Your task to perform on an android device: show emergency info Image 0: 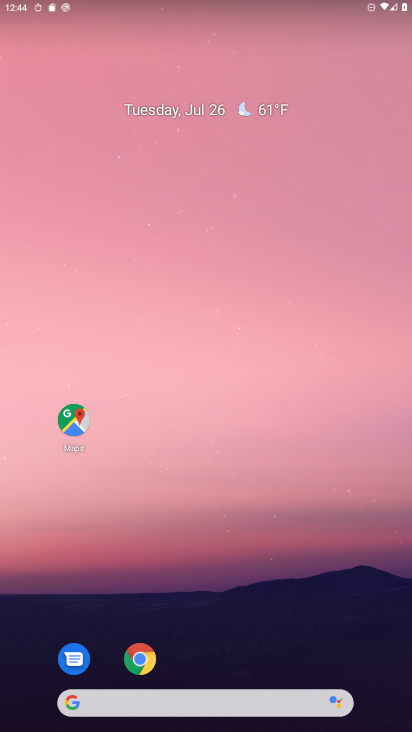
Step 0: drag from (33, 674) to (292, 11)
Your task to perform on an android device: show emergency info Image 1: 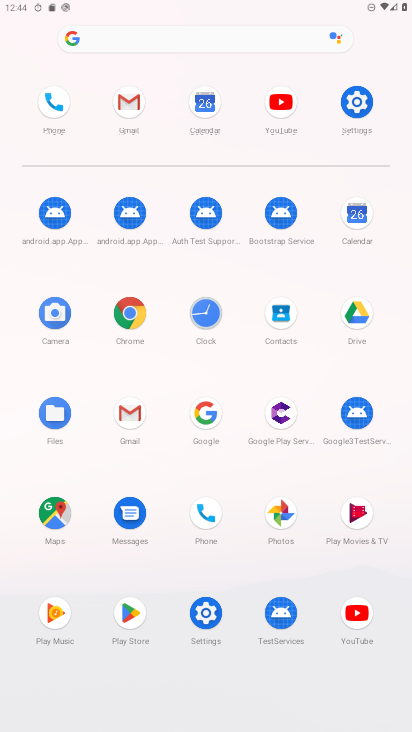
Step 1: click (217, 609)
Your task to perform on an android device: show emergency info Image 2: 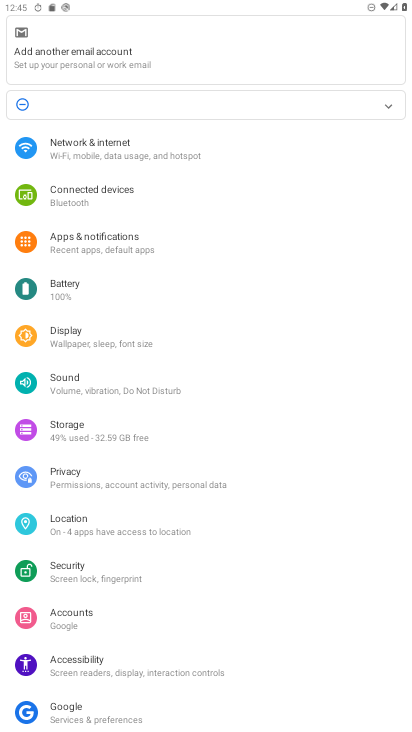
Step 2: click (99, 238)
Your task to perform on an android device: show emergency info Image 3: 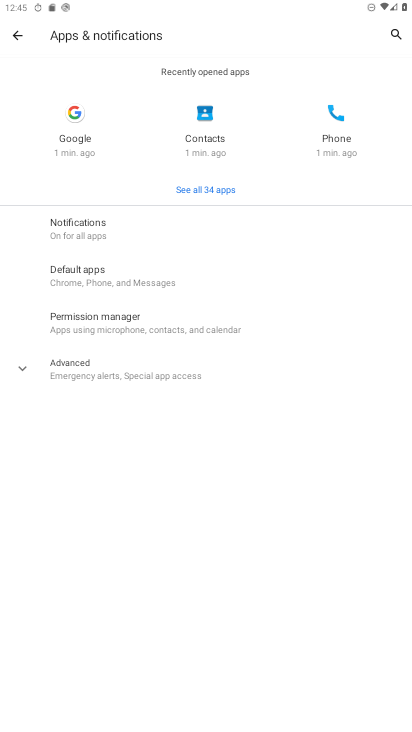
Step 3: click (84, 368)
Your task to perform on an android device: show emergency info Image 4: 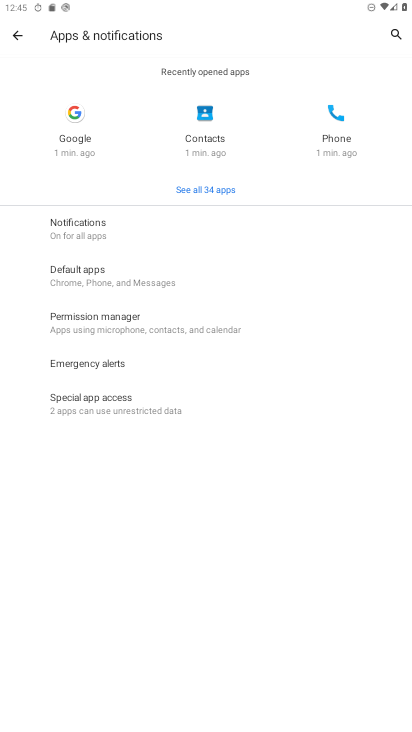
Step 4: click (86, 359)
Your task to perform on an android device: show emergency info Image 5: 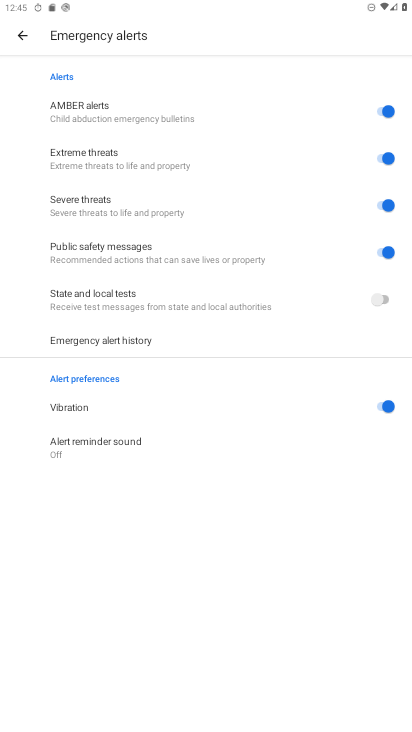
Step 5: task complete